Your task to perform on an android device: Open the Play Movies app and select the watchlist tab. Image 0: 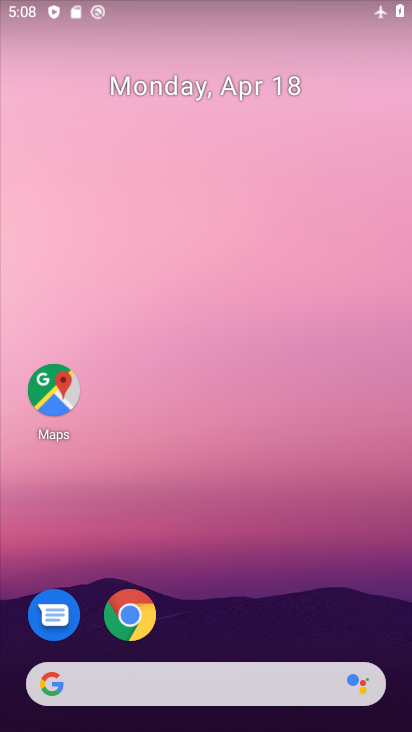
Step 0: drag from (242, 617) to (183, 80)
Your task to perform on an android device: Open the Play Movies app and select the watchlist tab. Image 1: 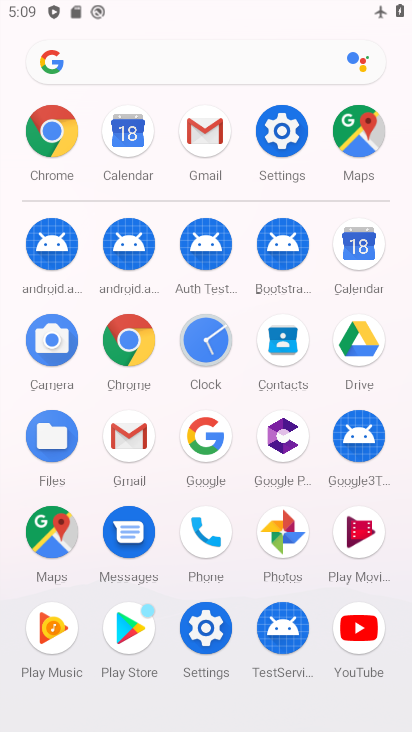
Step 1: click (370, 525)
Your task to perform on an android device: Open the Play Movies app and select the watchlist tab. Image 2: 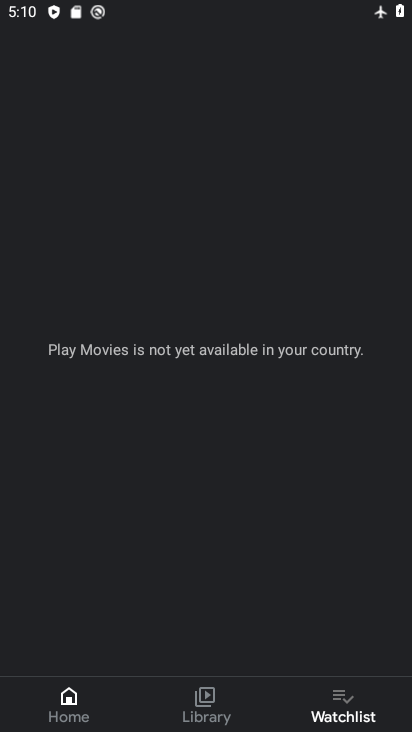
Step 2: task complete